Your task to perform on an android device: open app "Microsoft Authenticator" (install if not already installed) and go to login screen Image 0: 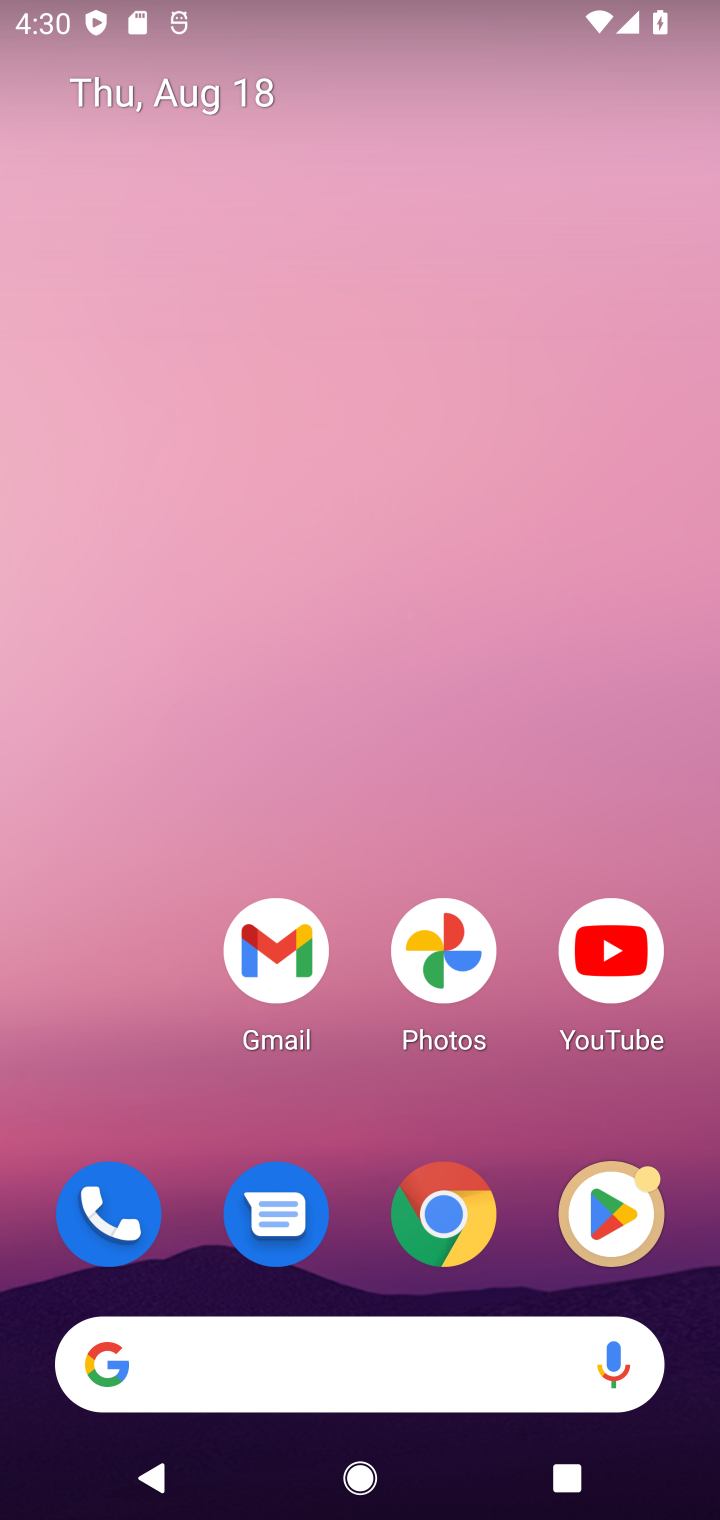
Step 0: click (603, 1188)
Your task to perform on an android device: open app "Microsoft Authenticator" (install if not already installed) and go to login screen Image 1: 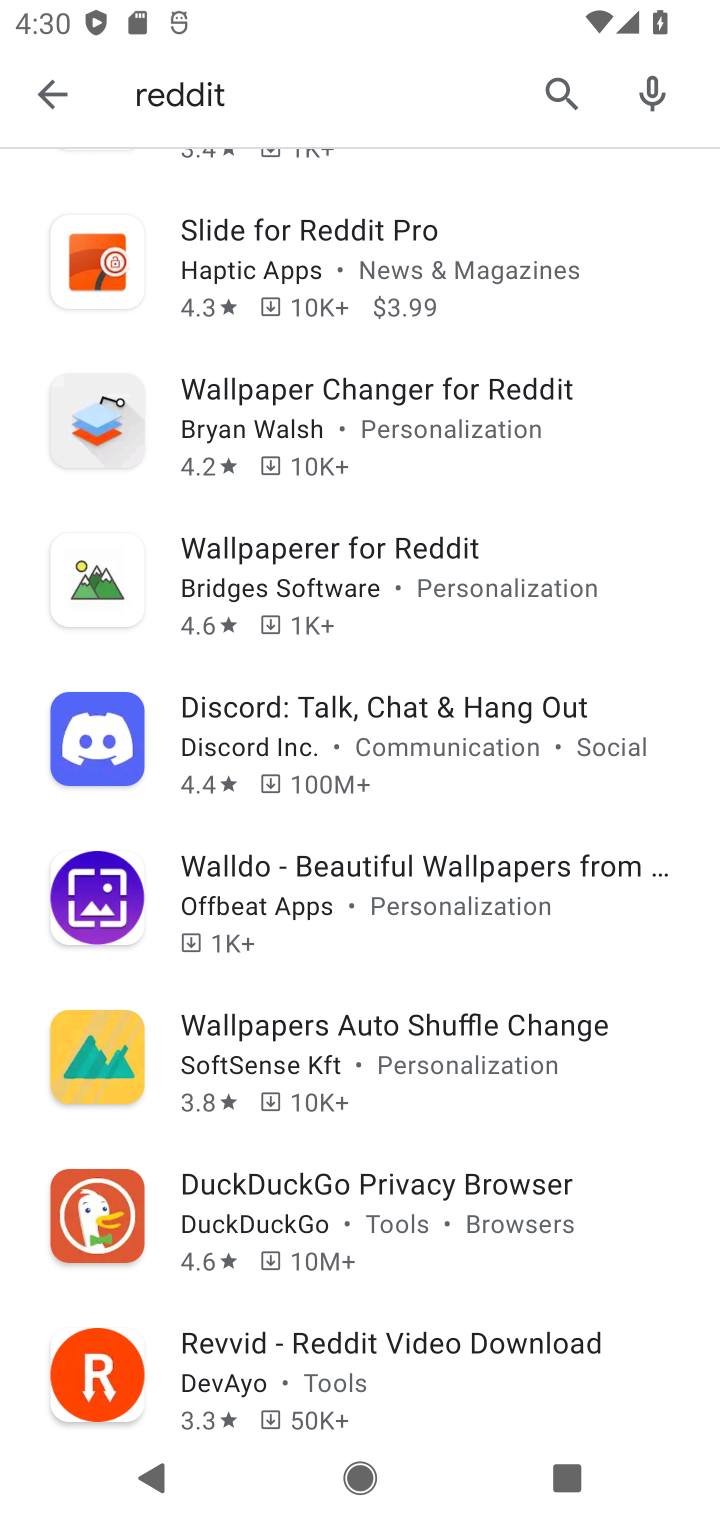
Step 1: click (306, 94)
Your task to perform on an android device: open app "Microsoft Authenticator" (install if not already installed) and go to login screen Image 2: 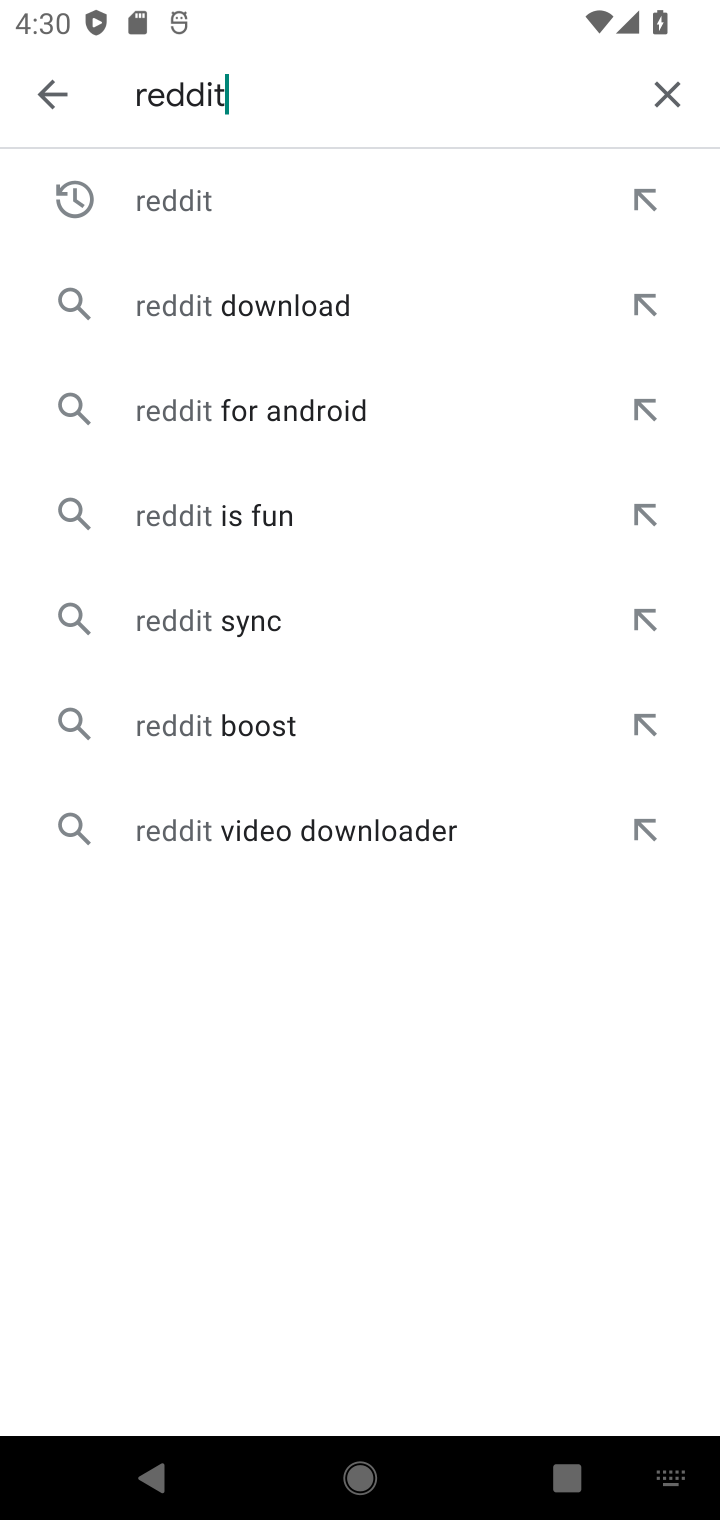
Step 2: click (657, 76)
Your task to perform on an android device: open app "Microsoft Authenticator" (install if not already installed) and go to login screen Image 3: 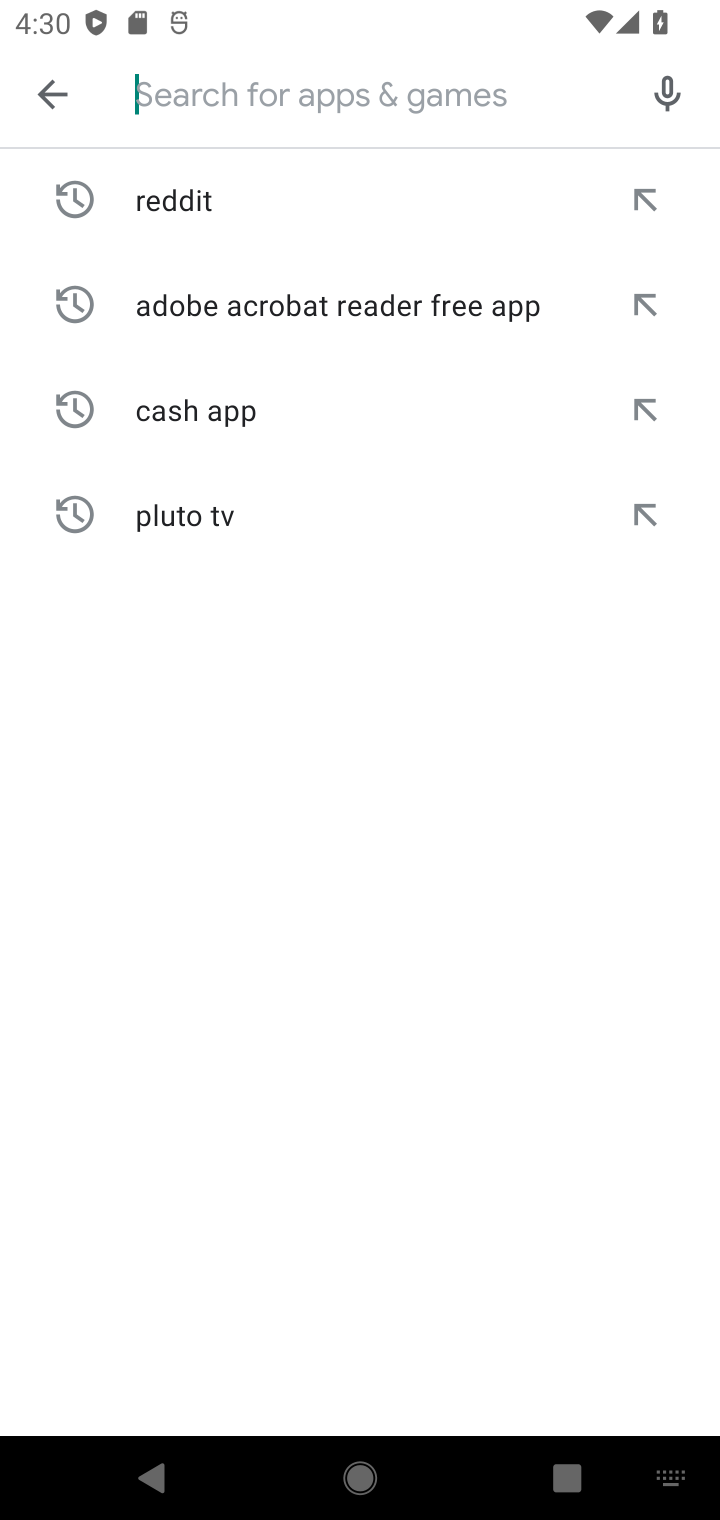
Step 3: type "microsoft authenticator"
Your task to perform on an android device: open app "Microsoft Authenticator" (install if not already installed) and go to login screen Image 4: 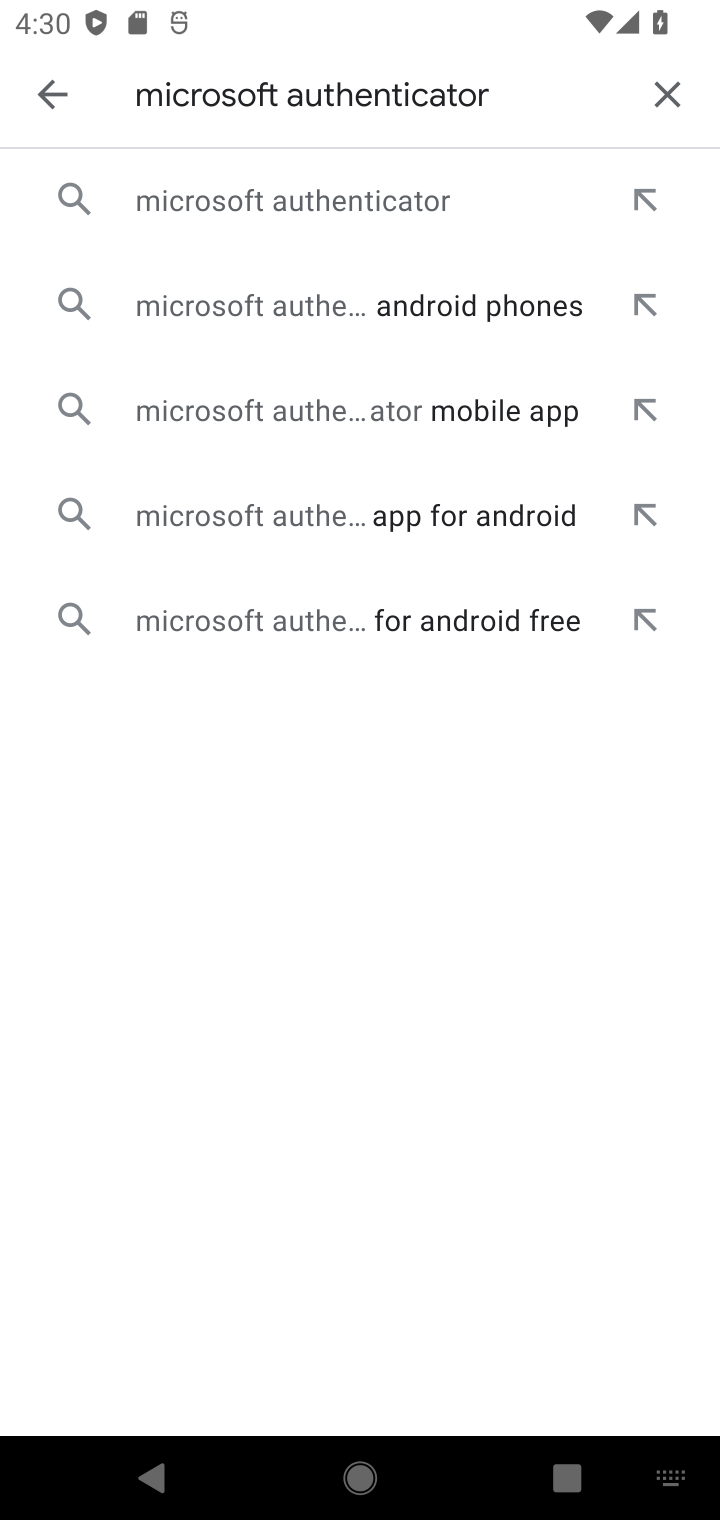
Step 4: click (373, 207)
Your task to perform on an android device: open app "Microsoft Authenticator" (install if not already installed) and go to login screen Image 5: 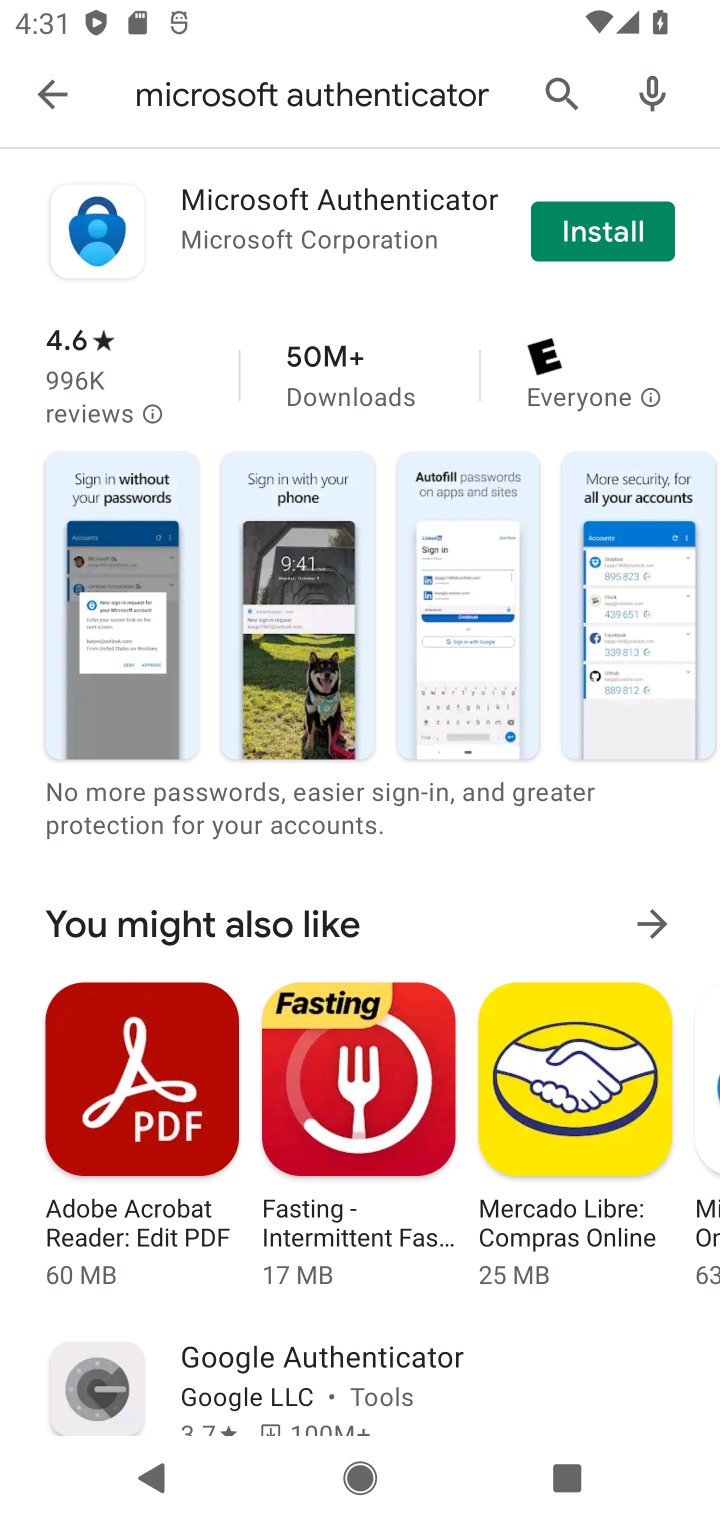
Step 5: click (569, 215)
Your task to perform on an android device: open app "Microsoft Authenticator" (install if not already installed) and go to login screen Image 6: 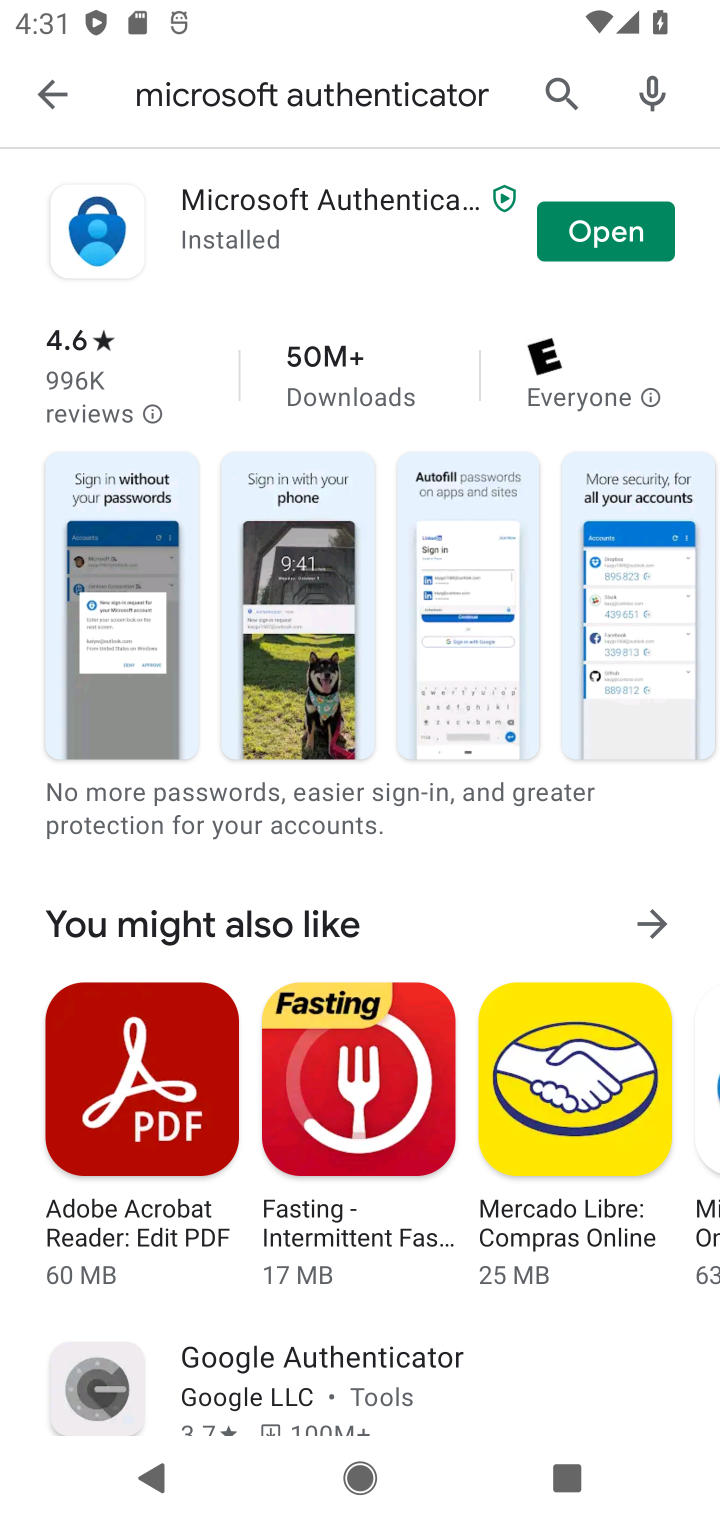
Step 6: click (572, 230)
Your task to perform on an android device: open app "Microsoft Authenticator" (install if not already installed) and go to login screen Image 7: 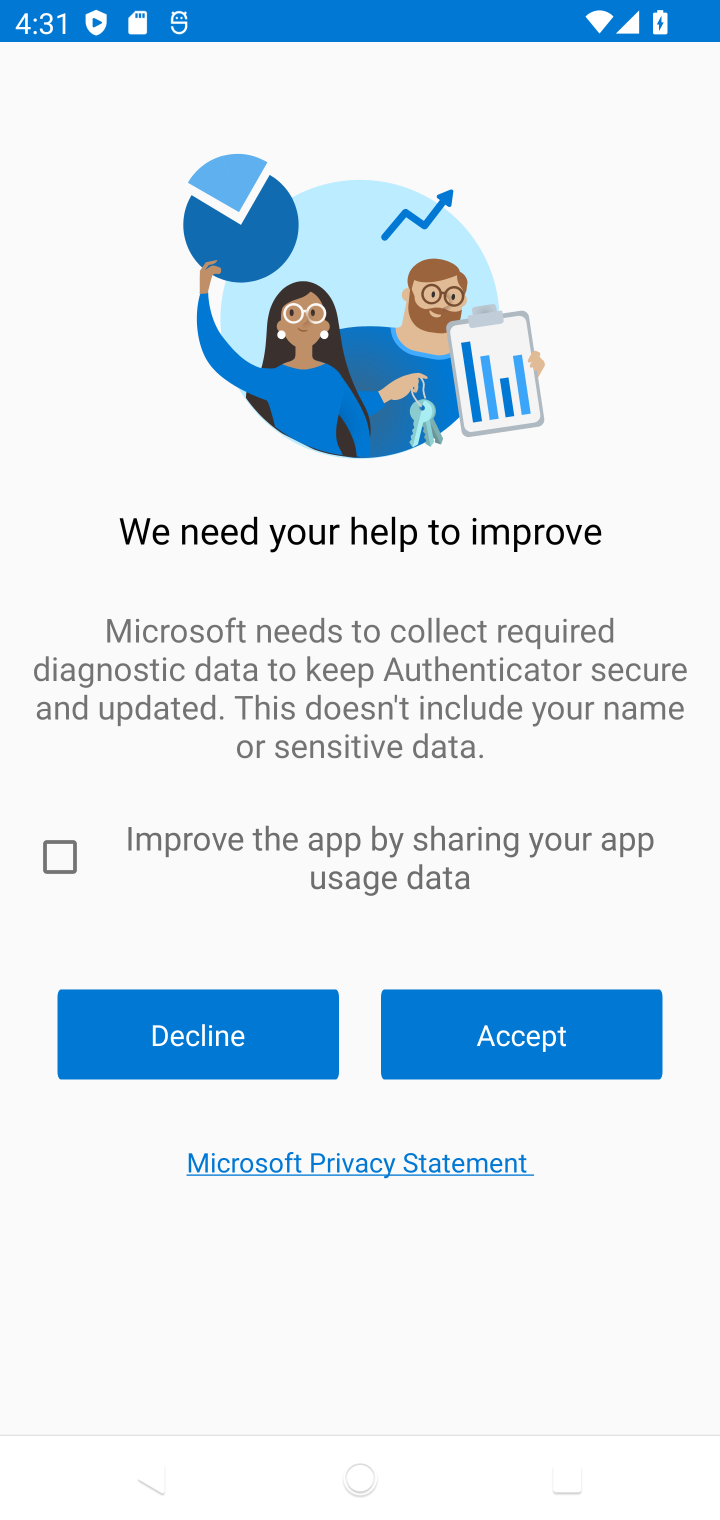
Step 7: click (48, 854)
Your task to perform on an android device: open app "Microsoft Authenticator" (install if not already installed) and go to login screen Image 8: 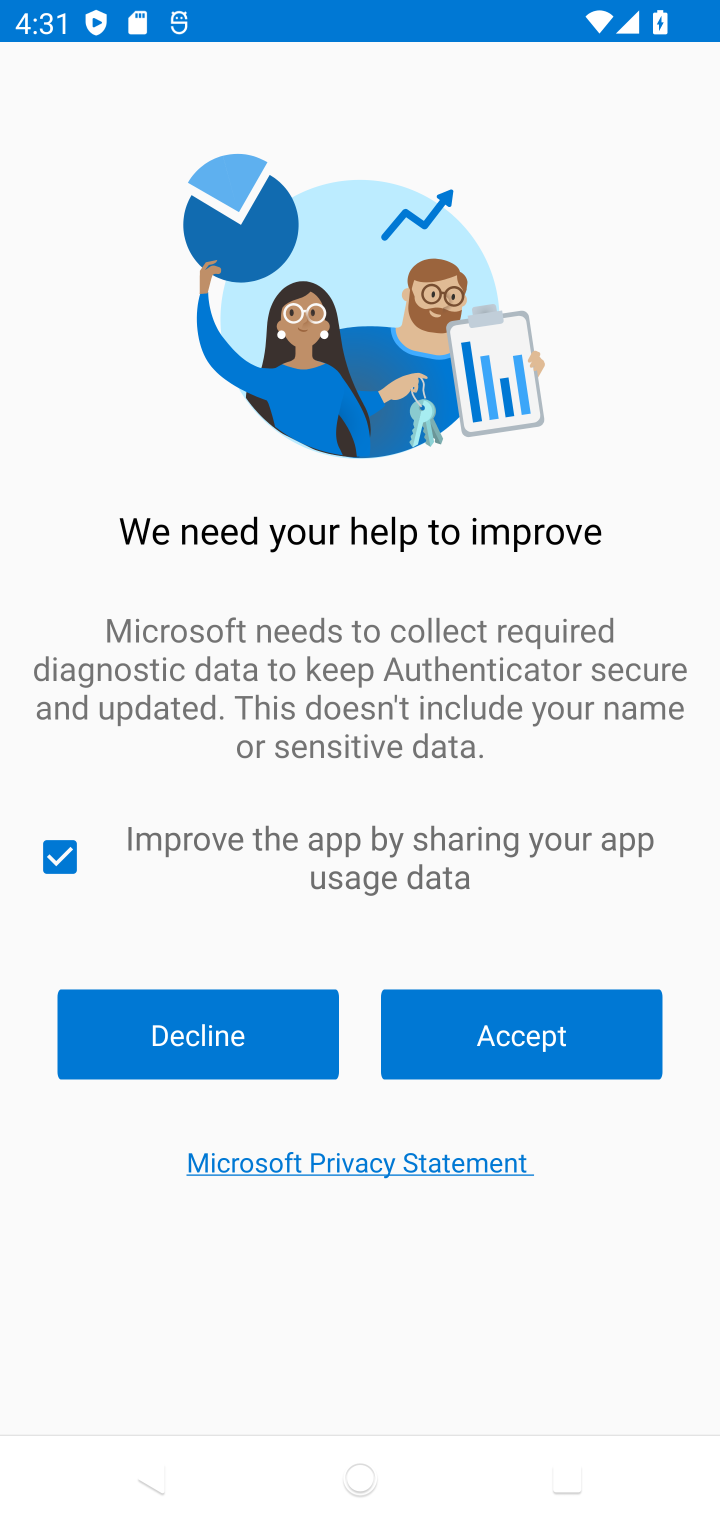
Step 8: click (556, 1029)
Your task to perform on an android device: open app "Microsoft Authenticator" (install if not already installed) and go to login screen Image 9: 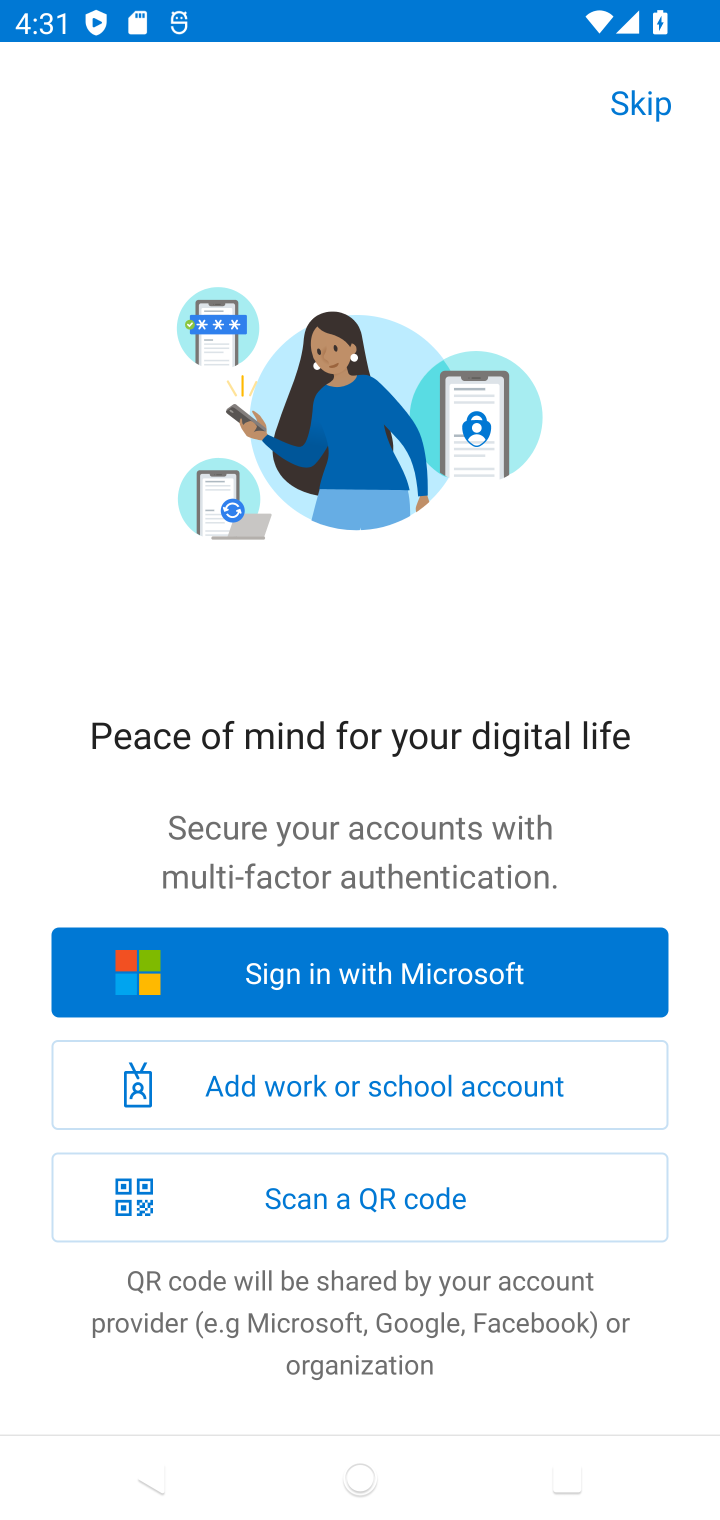
Step 9: click (498, 972)
Your task to perform on an android device: open app "Microsoft Authenticator" (install if not already installed) and go to login screen Image 10: 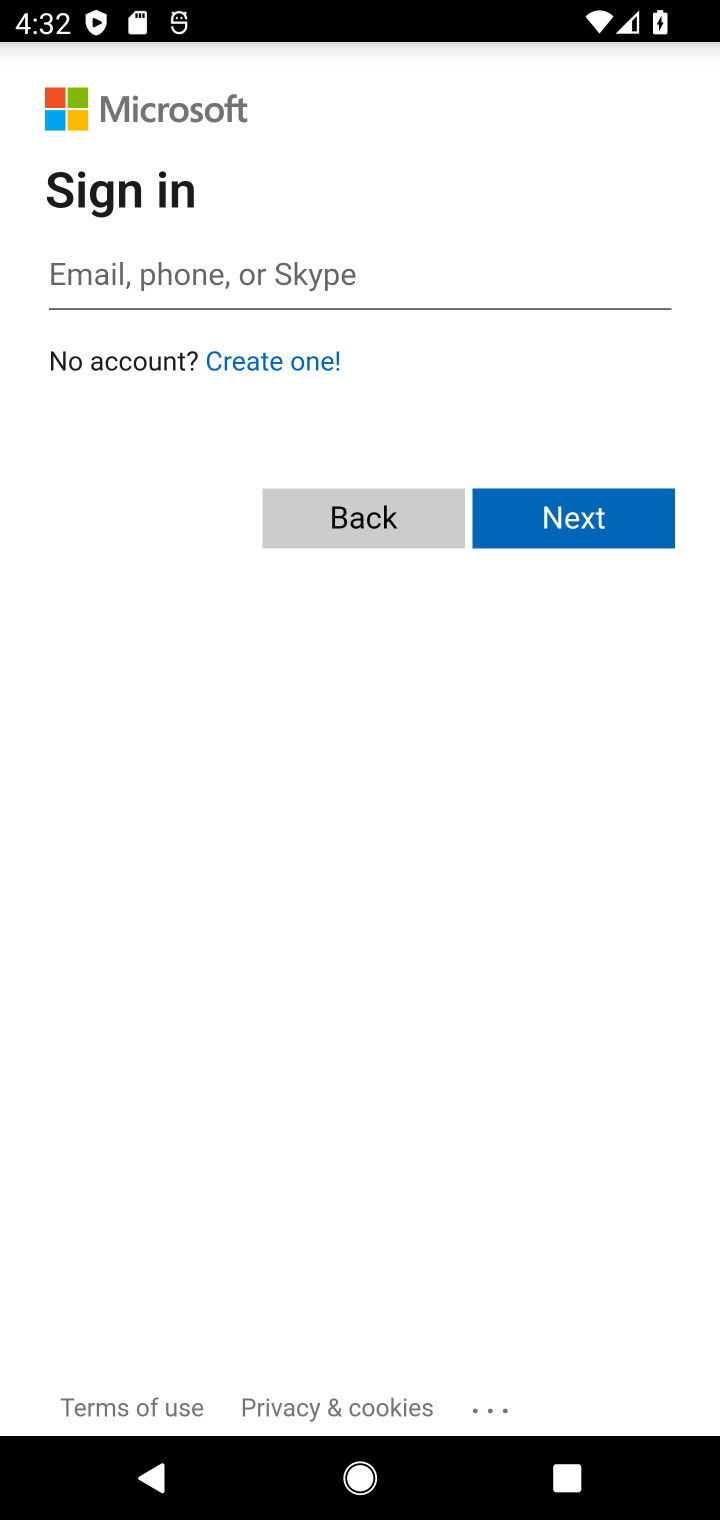
Step 10: task complete